Your task to perform on an android device: toggle pop-ups in chrome Image 0: 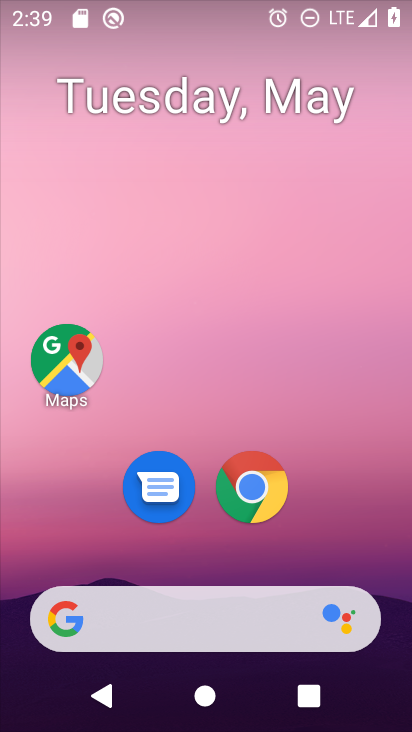
Step 0: click (268, 489)
Your task to perform on an android device: toggle pop-ups in chrome Image 1: 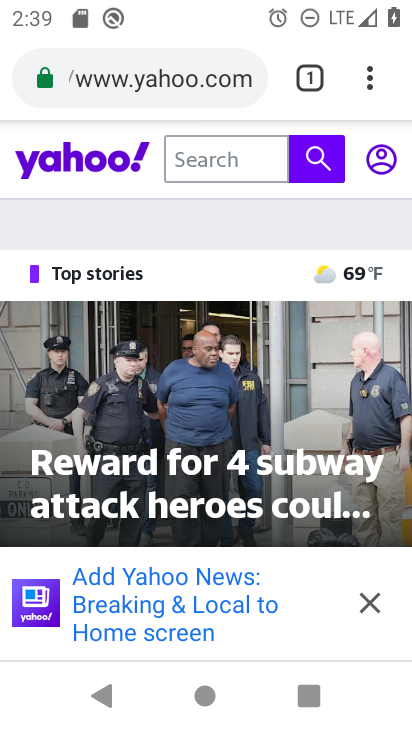
Step 1: click (372, 90)
Your task to perform on an android device: toggle pop-ups in chrome Image 2: 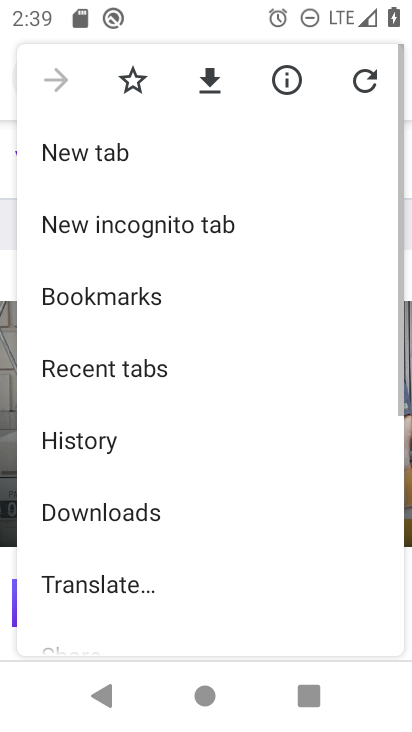
Step 2: drag from (8, 596) to (221, 124)
Your task to perform on an android device: toggle pop-ups in chrome Image 3: 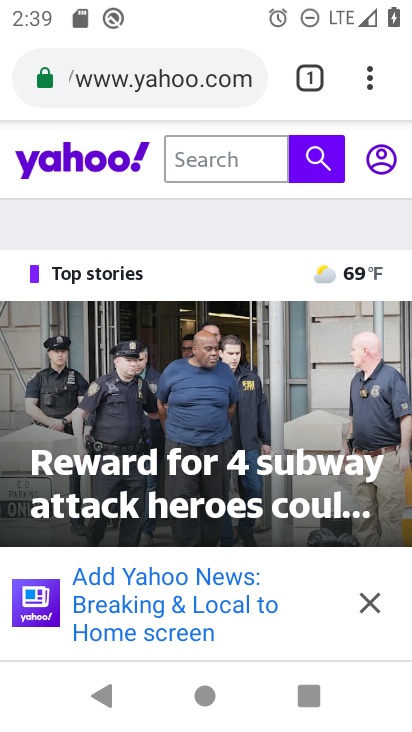
Step 3: click (375, 77)
Your task to perform on an android device: toggle pop-ups in chrome Image 4: 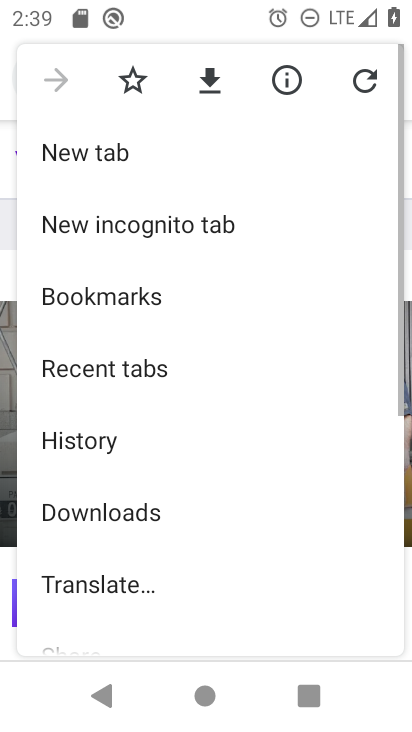
Step 4: drag from (146, 591) to (241, 175)
Your task to perform on an android device: toggle pop-ups in chrome Image 5: 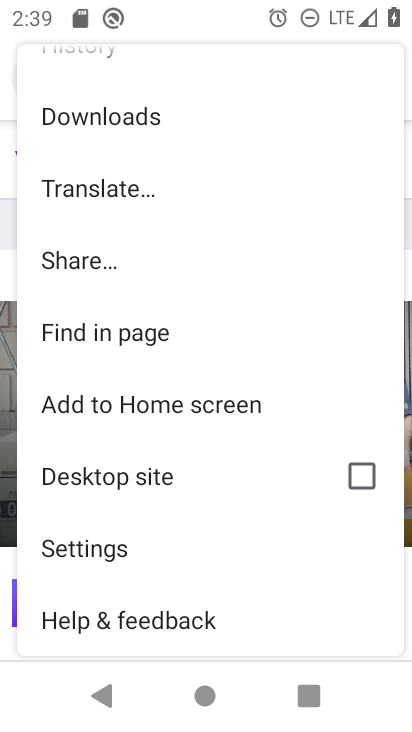
Step 5: click (58, 550)
Your task to perform on an android device: toggle pop-ups in chrome Image 6: 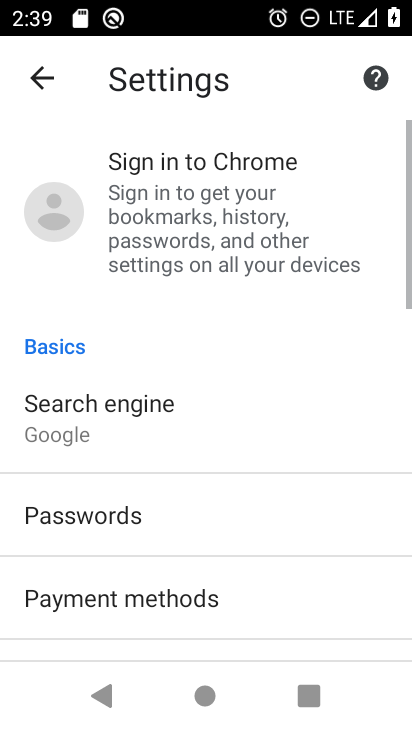
Step 6: drag from (94, 612) to (282, 162)
Your task to perform on an android device: toggle pop-ups in chrome Image 7: 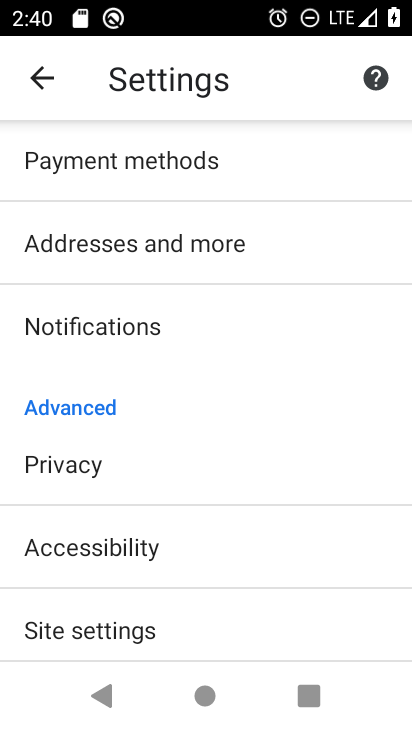
Step 7: drag from (121, 627) to (242, 317)
Your task to perform on an android device: toggle pop-ups in chrome Image 8: 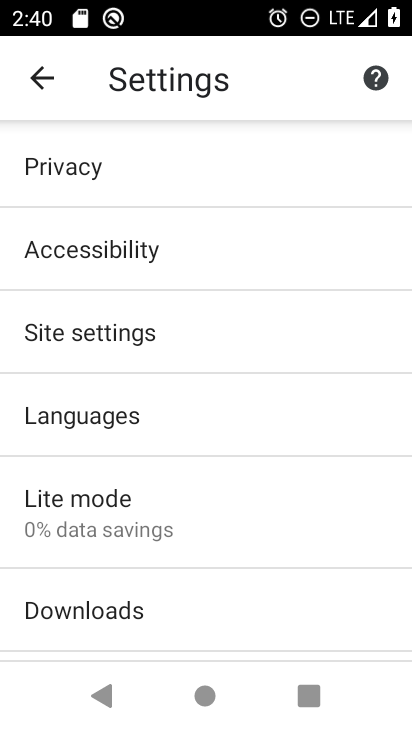
Step 8: click (88, 338)
Your task to perform on an android device: toggle pop-ups in chrome Image 9: 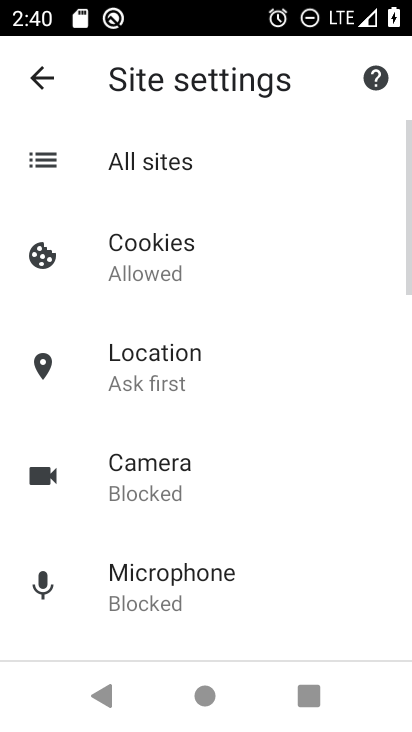
Step 9: drag from (40, 602) to (347, 165)
Your task to perform on an android device: toggle pop-ups in chrome Image 10: 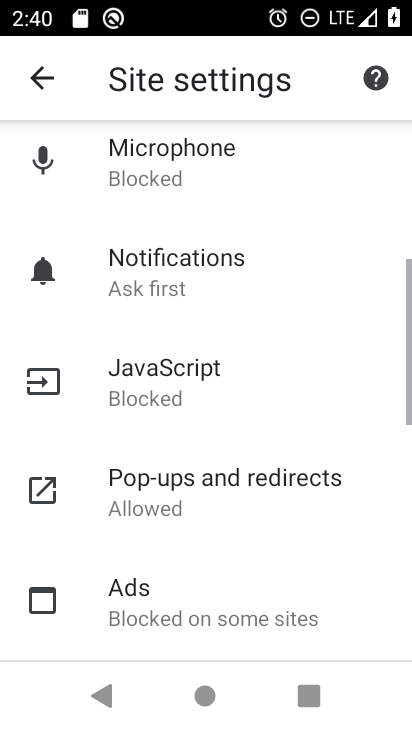
Step 10: drag from (156, 629) to (283, 176)
Your task to perform on an android device: toggle pop-ups in chrome Image 11: 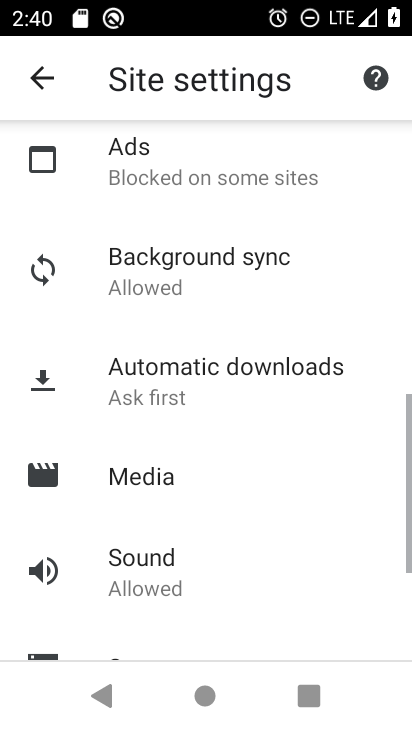
Step 11: drag from (142, 172) to (132, 598)
Your task to perform on an android device: toggle pop-ups in chrome Image 12: 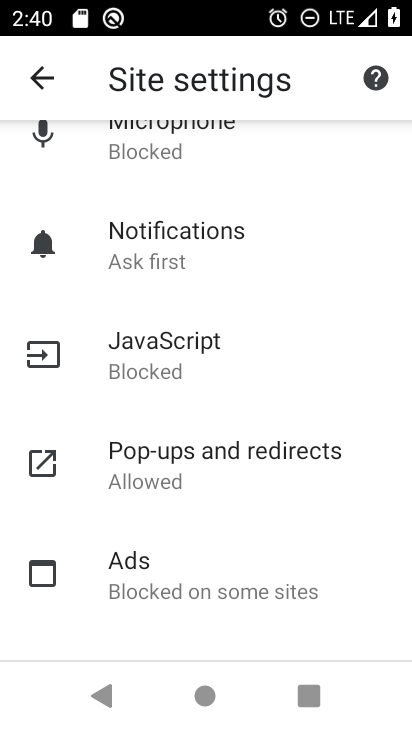
Step 12: click (175, 456)
Your task to perform on an android device: toggle pop-ups in chrome Image 13: 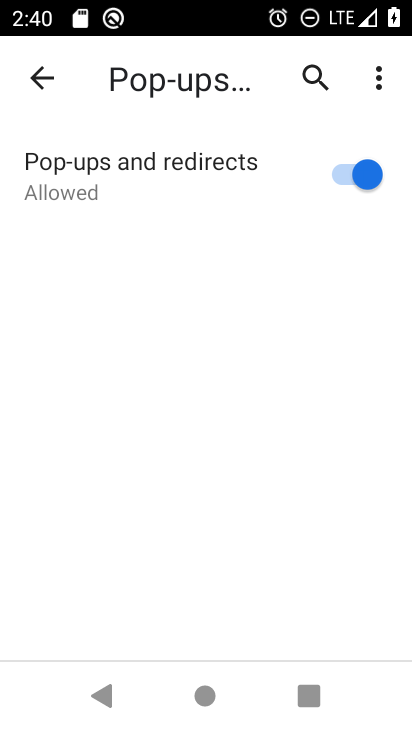
Step 13: click (364, 172)
Your task to perform on an android device: toggle pop-ups in chrome Image 14: 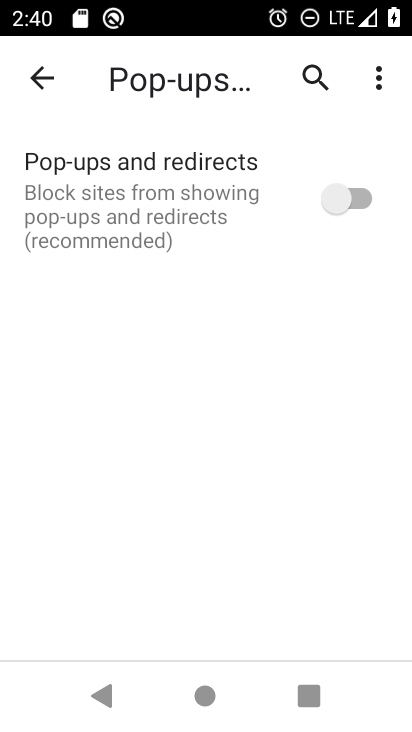
Step 14: task complete